Your task to perform on an android device: turn off notifications in google photos Image 0: 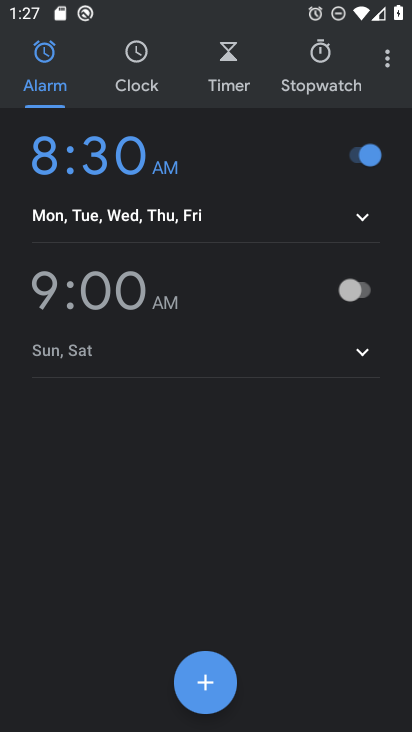
Step 0: press home button
Your task to perform on an android device: turn off notifications in google photos Image 1: 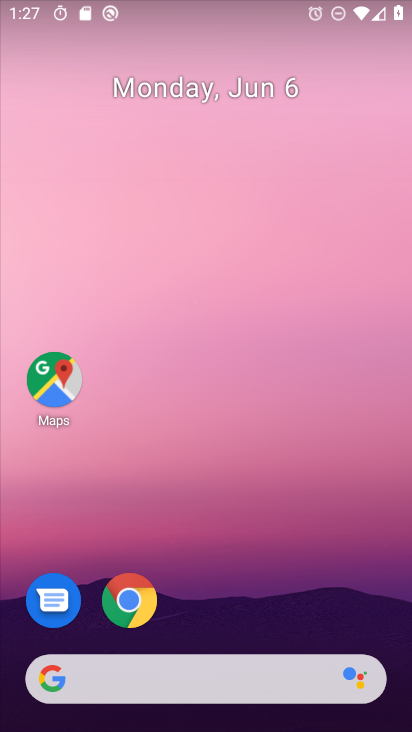
Step 1: drag from (223, 618) to (242, 232)
Your task to perform on an android device: turn off notifications in google photos Image 2: 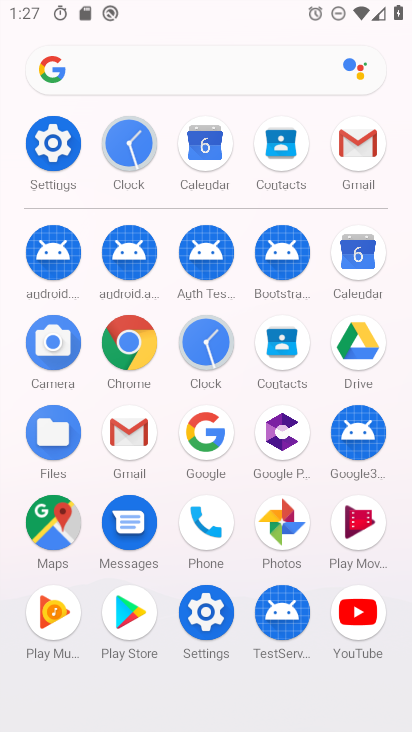
Step 2: click (265, 521)
Your task to perform on an android device: turn off notifications in google photos Image 3: 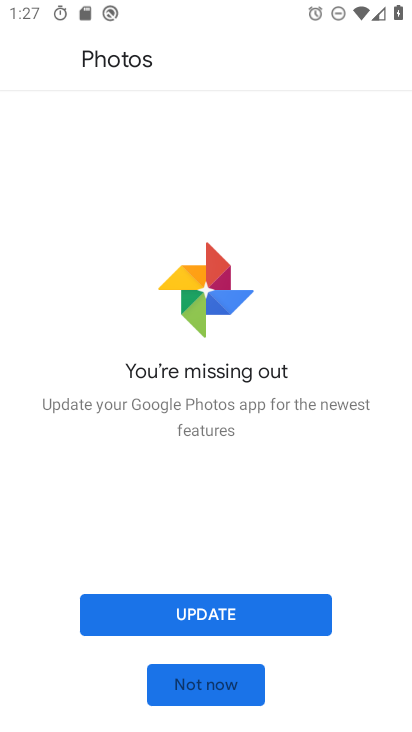
Step 3: click (239, 694)
Your task to perform on an android device: turn off notifications in google photos Image 4: 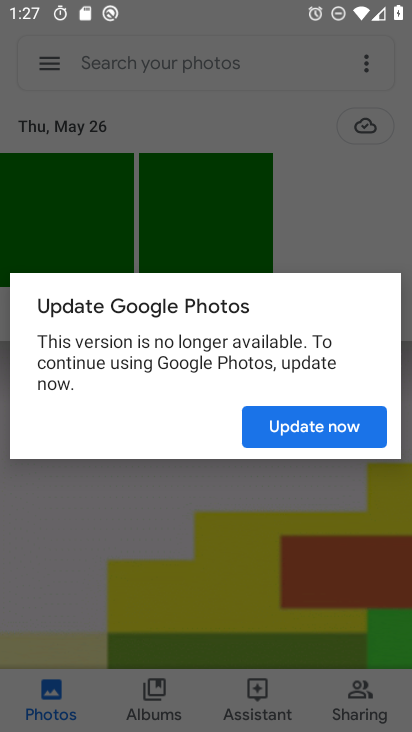
Step 4: click (257, 424)
Your task to perform on an android device: turn off notifications in google photos Image 5: 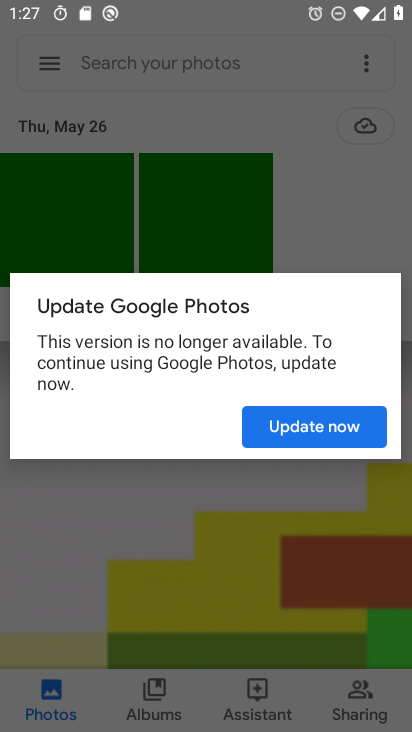
Step 5: click (326, 428)
Your task to perform on an android device: turn off notifications in google photos Image 6: 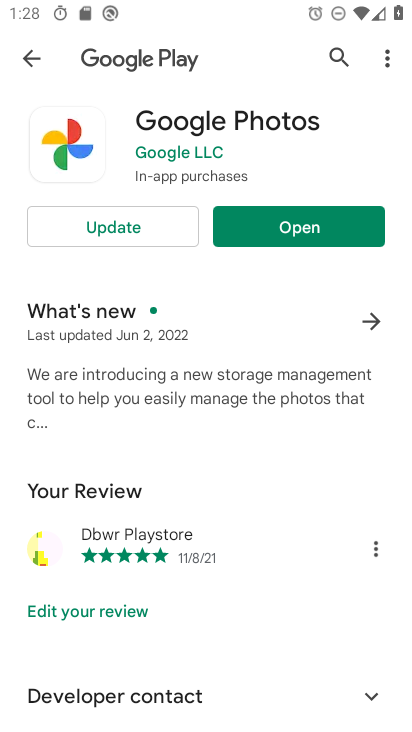
Step 6: click (295, 232)
Your task to perform on an android device: turn off notifications in google photos Image 7: 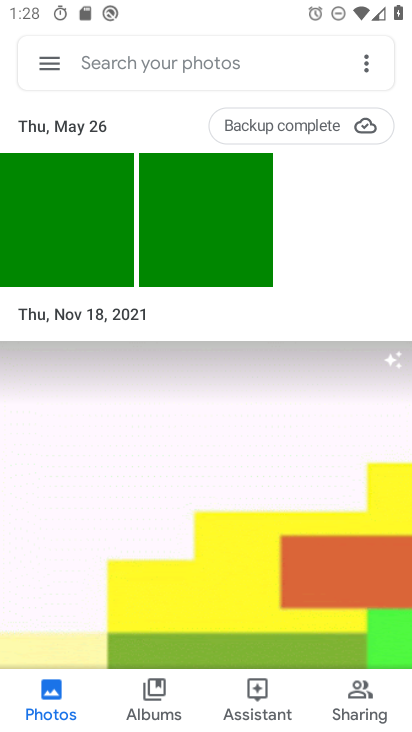
Step 7: click (53, 62)
Your task to perform on an android device: turn off notifications in google photos Image 8: 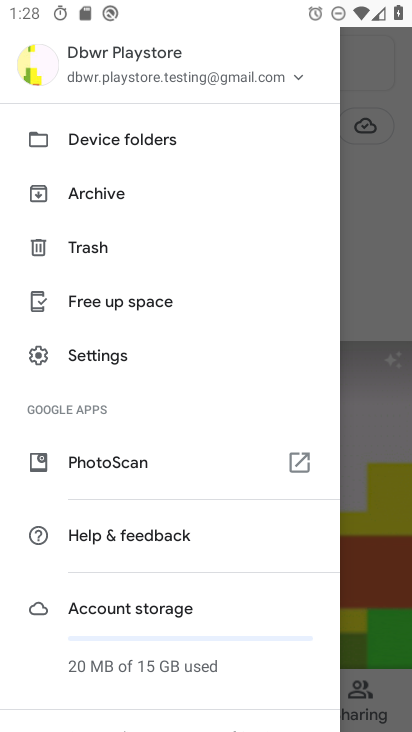
Step 8: click (117, 363)
Your task to perform on an android device: turn off notifications in google photos Image 9: 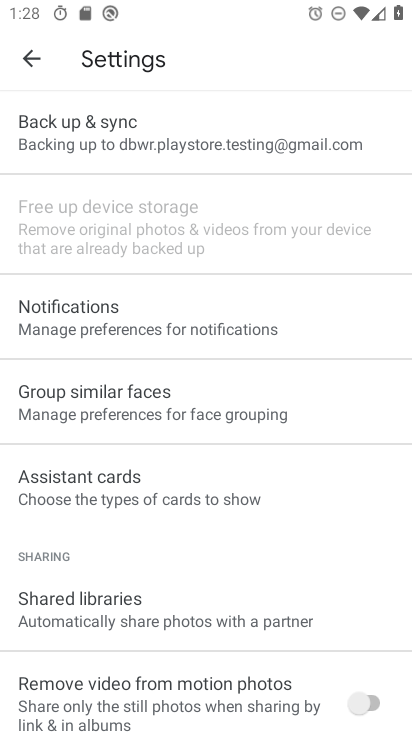
Step 9: drag from (148, 484) to (214, 123)
Your task to perform on an android device: turn off notifications in google photos Image 10: 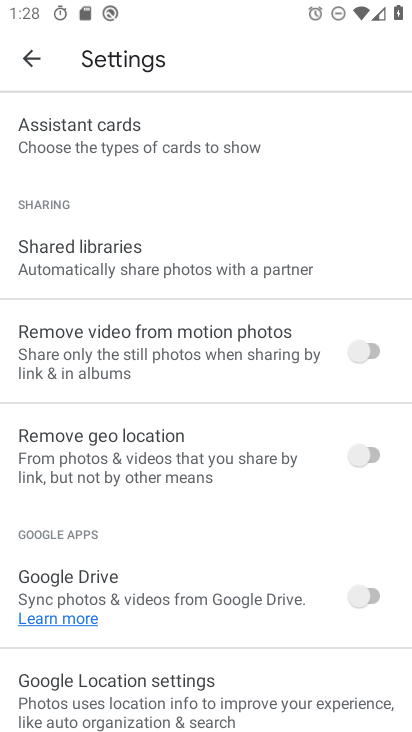
Step 10: click (17, 61)
Your task to perform on an android device: turn off notifications in google photos Image 11: 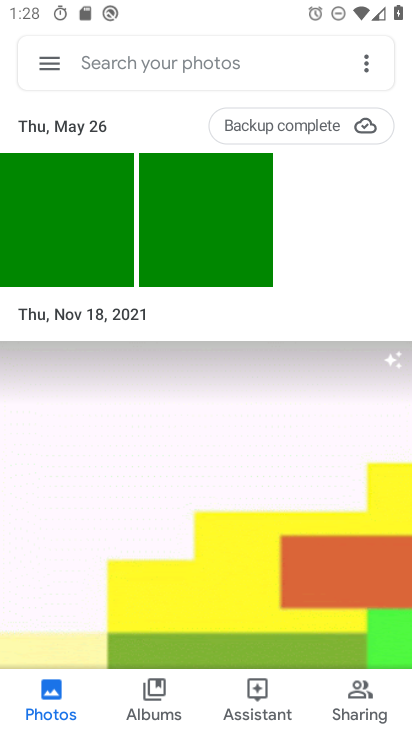
Step 11: click (41, 62)
Your task to perform on an android device: turn off notifications in google photos Image 12: 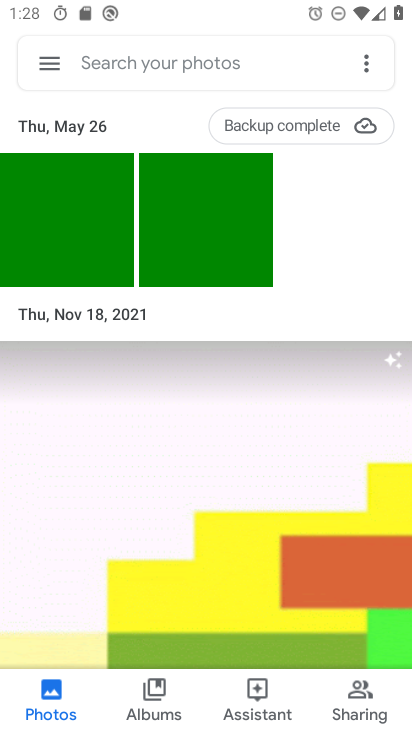
Step 12: click (42, 71)
Your task to perform on an android device: turn off notifications in google photos Image 13: 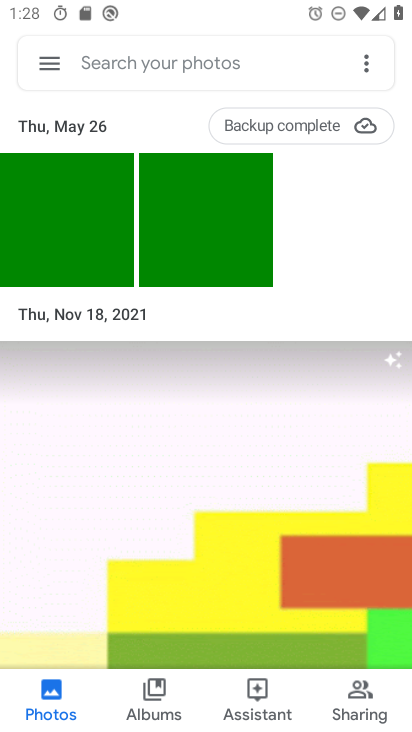
Step 13: click (42, 64)
Your task to perform on an android device: turn off notifications in google photos Image 14: 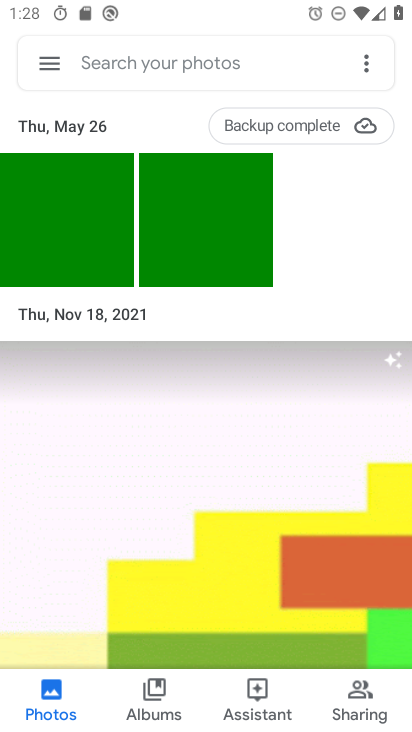
Step 14: click (46, 60)
Your task to perform on an android device: turn off notifications in google photos Image 15: 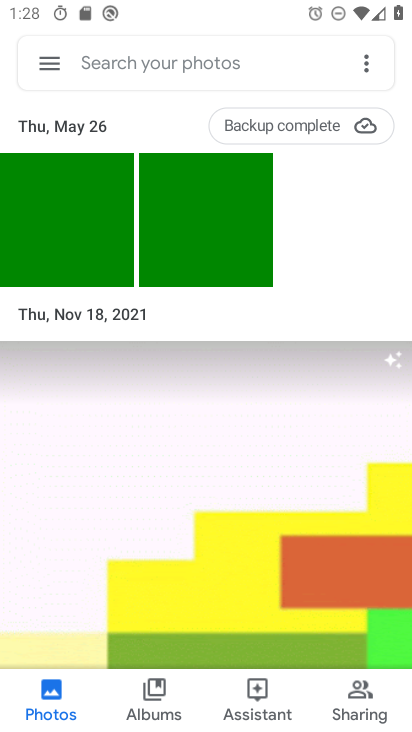
Step 15: click (49, 63)
Your task to perform on an android device: turn off notifications in google photos Image 16: 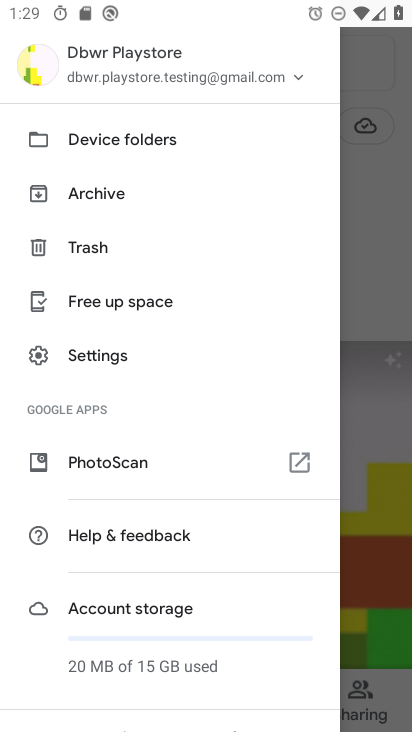
Step 16: click (119, 369)
Your task to perform on an android device: turn off notifications in google photos Image 17: 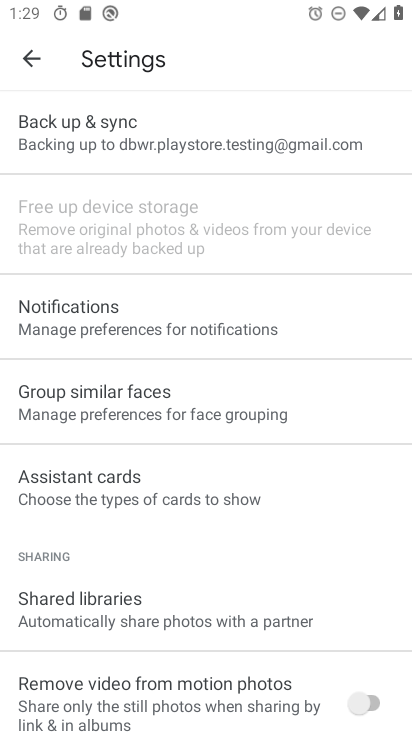
Step 17: drag from (261, 483) to (267, 242)
Your task to perform on an android device: turn off notifications in google photos Image 18: 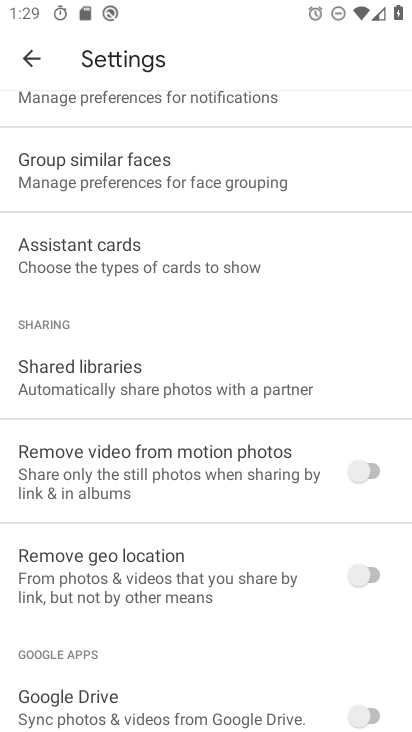
Step 18: drag from (170, 705) to (198, 306)
Your task to perform on an android device: turn off notifications in google photos Image 19: 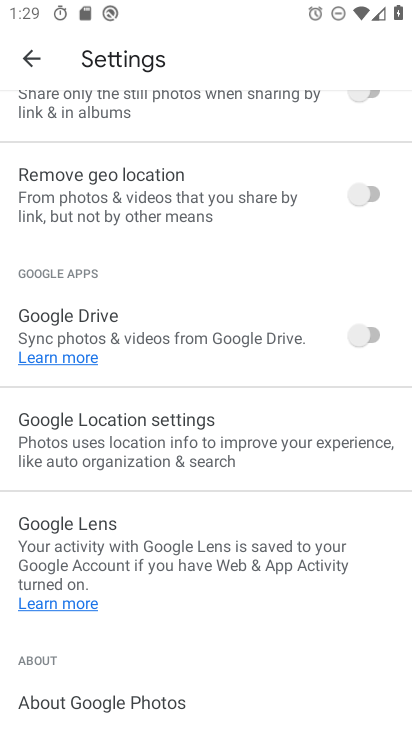
Step 19: drag from (189, 618) to (216, 258)
Your task to perform on an android device: turn off notifications in google photos Image 20: 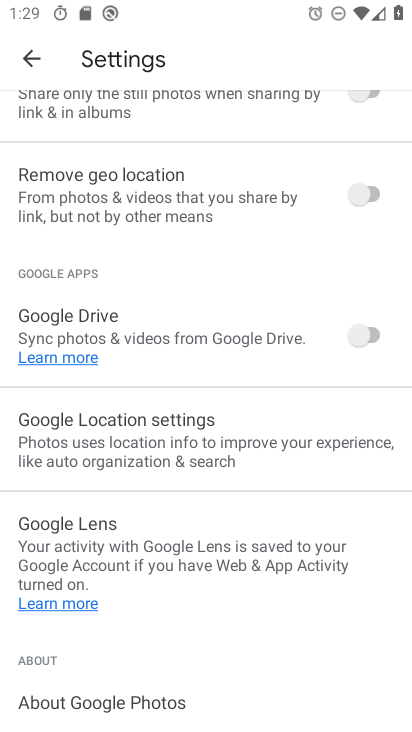
Step 20: drag from (204, 441) to (229, 180)
Your task to perform on an android device: turn off notifications in google photos Image 21: 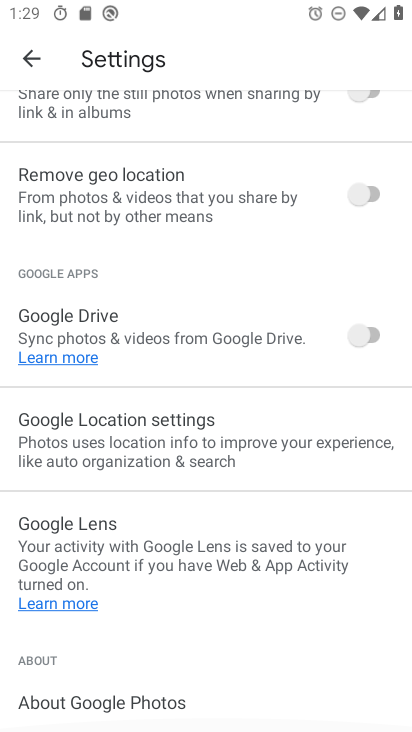
Step 21: drag from (206, 269) to (206, 501)
Your task to perform on an android device: turn off notifications in google photos Image 22: 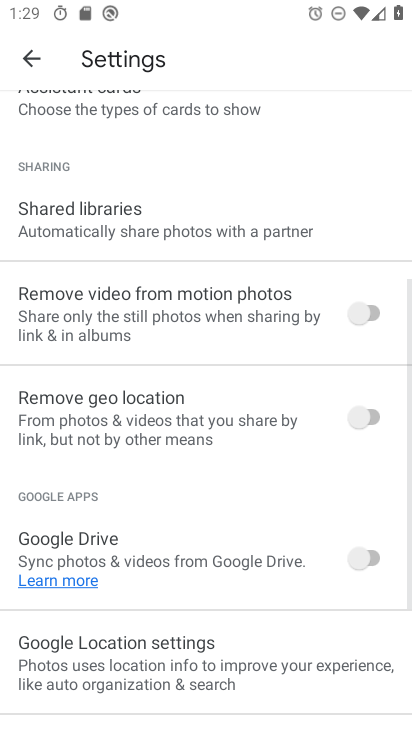
Step 22: drag from (186, 253) to (202, 515)
Your task to perform on an android device: turn off notifications in google photos Image 23: 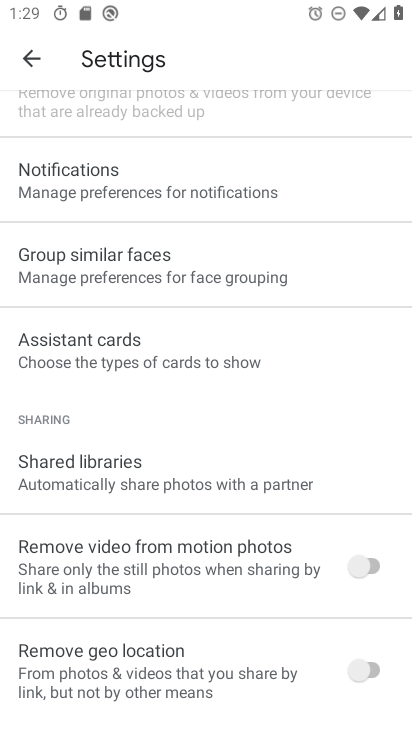
Step 23: drag from (210, 349) to (244, 605)
Your task to perform on an android device: turn off notifications in google photos Image 24: 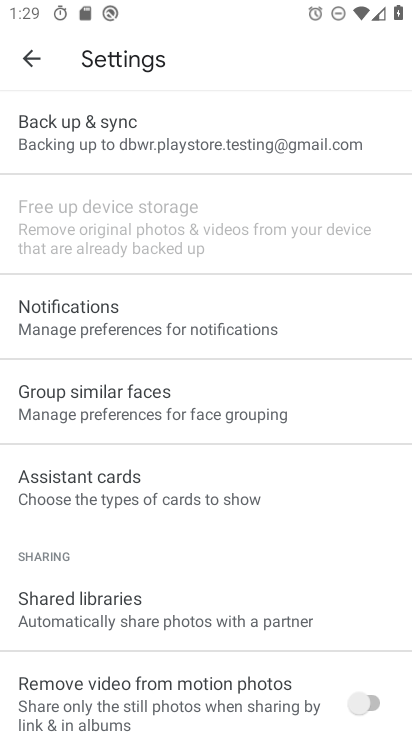
Step 24: click (217, 312)
Your task to perform on an android device: turn off notifications in google photos Image 25: 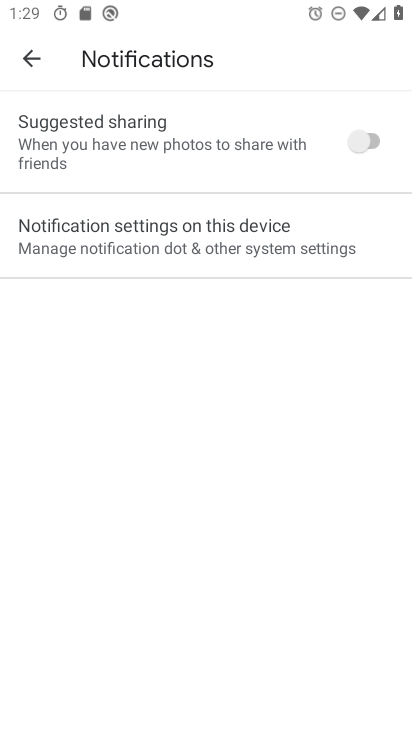
Step 25: click (246, 257)
Your task to perform on an android device: turn off notifications in google photos Image 26: 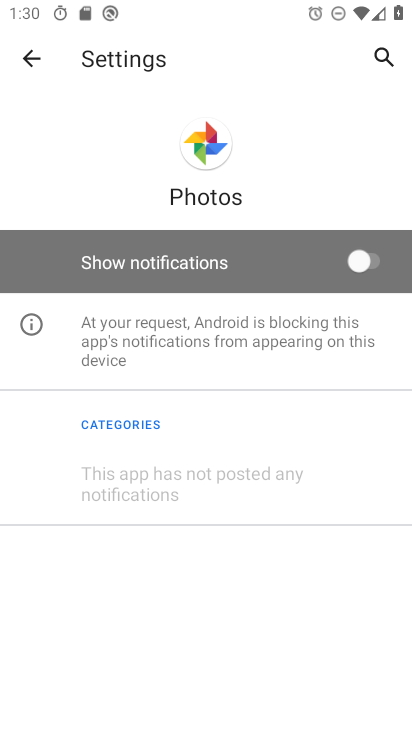
Step 26: task complete